Your task to perform on an android device: Turn off the flashlight Image 0: 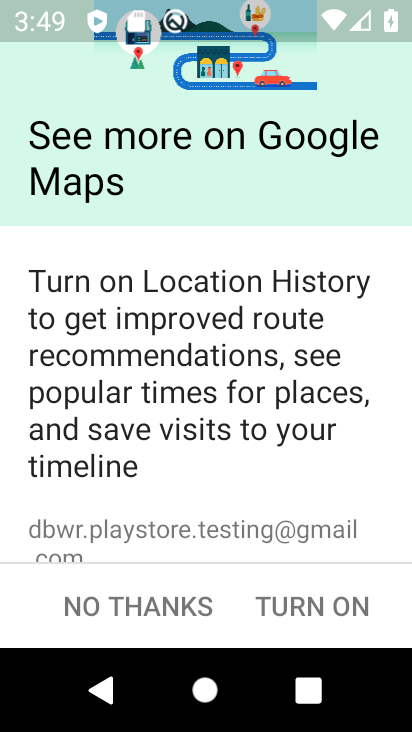
Step 0: press home button
Your task to perform on an android device: Turn off the flashlight Image 1: 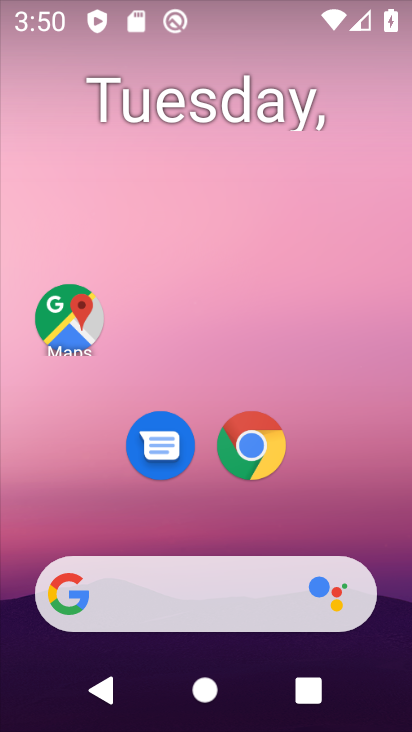
Step 1: drag from (364, 13) to (381, 578)
Your task to perform on an android device: Turn off the flashlight Image 2: 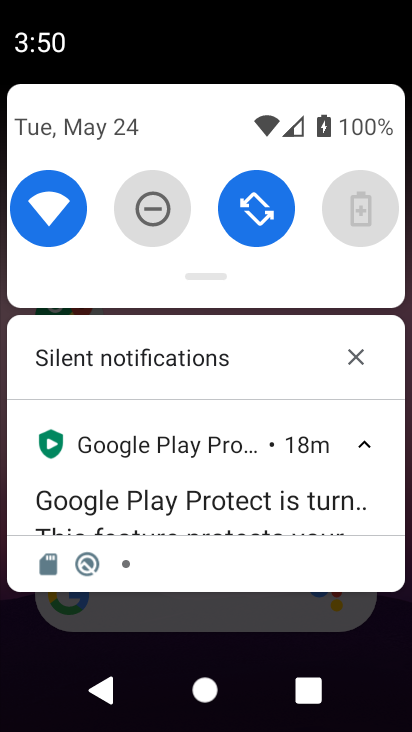
Step 2: drag from (343, 289) to (137, 723)
Your task to perform on an android device: Turn off the flashlight Image 3: 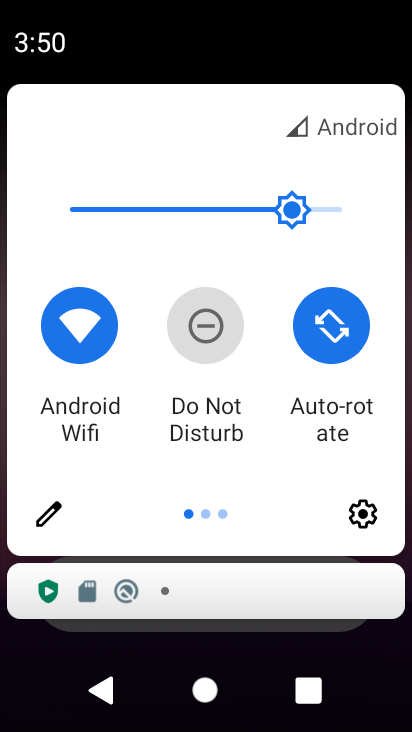
Step 3: click (58, 514)
Your task to perform on an android device: Turn off the flashlight Image 4: 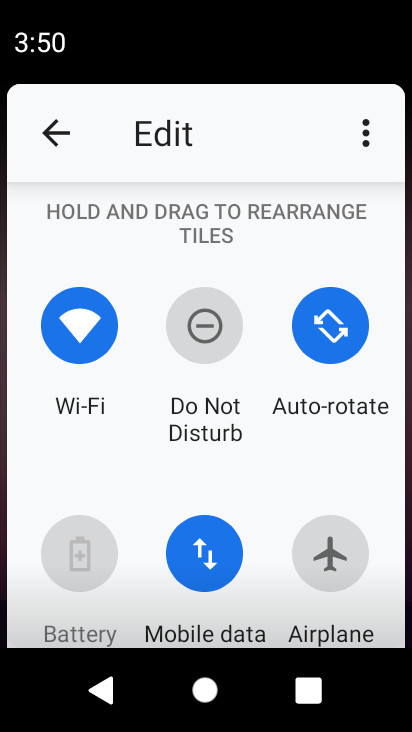
Step 4: task complete